Your task to perform on an android device: see sites visited before in the chrome app Image 0: 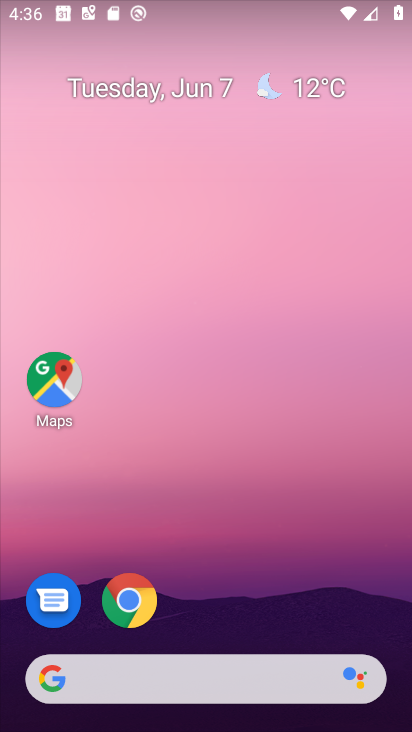
Step 0: click (128, 597)
Your task to perform on an android device: see sites visited before in the chrome app Image 1: 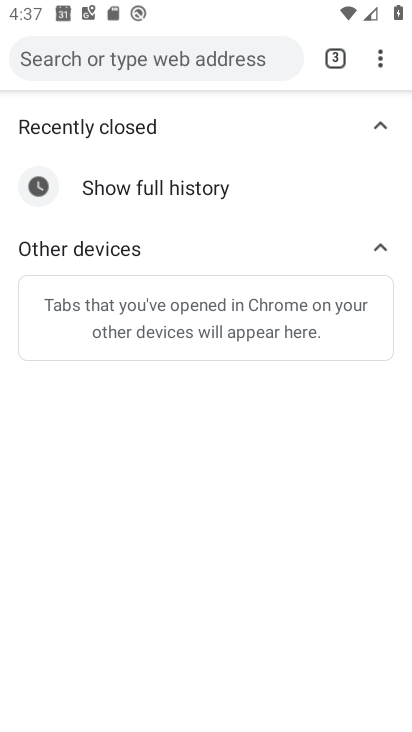
Step 1: task complete